Your task to perform on an android device: open app "Viber Messenger" Image 0: 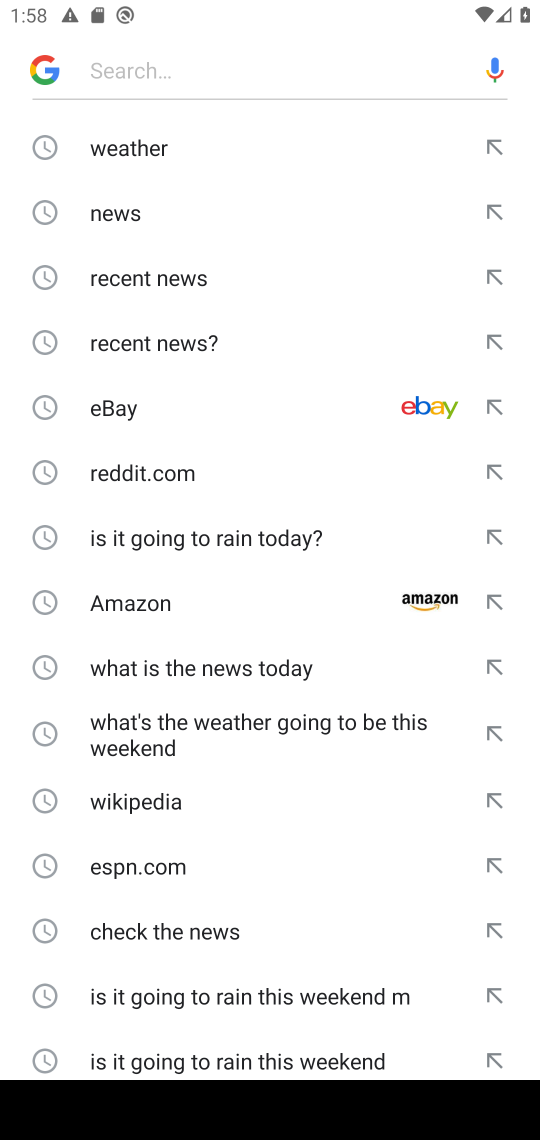
Step 0: press home button
Your task to perform on an android device: open app "Viber Messenger" Image 1: 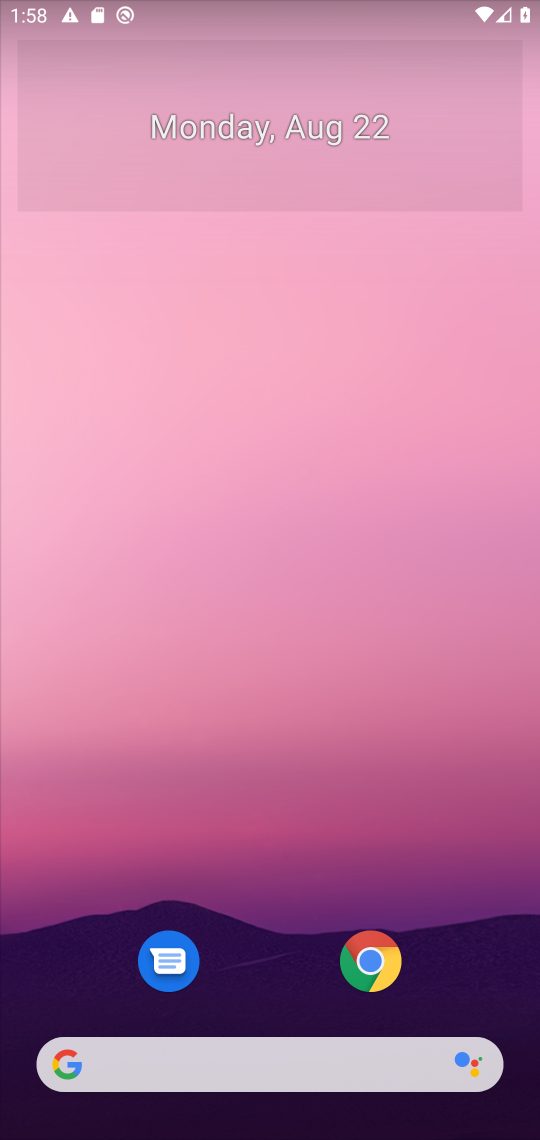
Step 1: drag from (470, 974) to (492, 213)
Your task to perform on an android device: open app "Viber Messenger" Image 2: 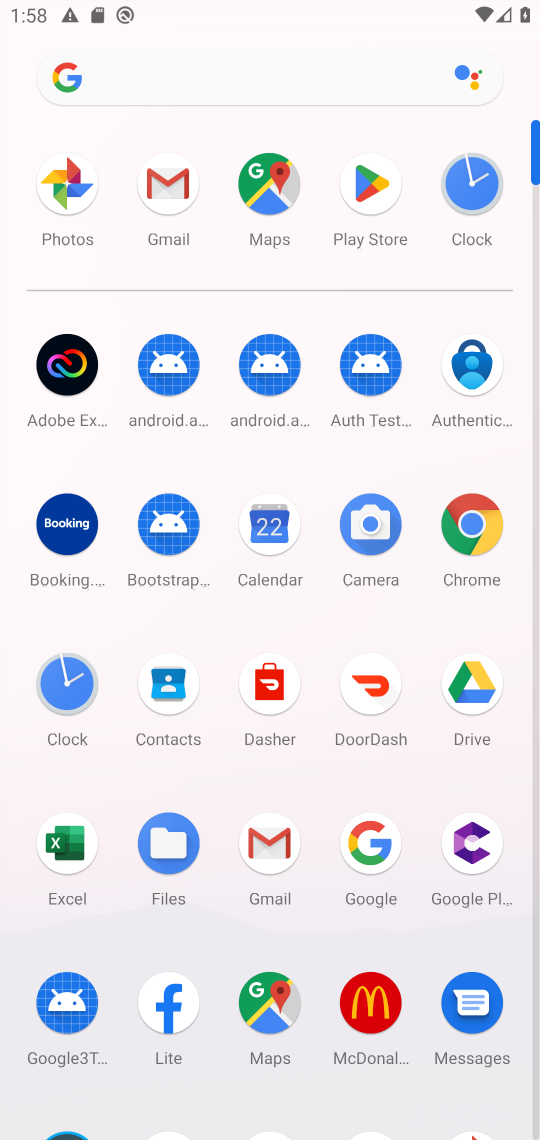
Step 2: click (380, 184)
Your task to perform on an android device: open app "Viber Messenger" Image 3: 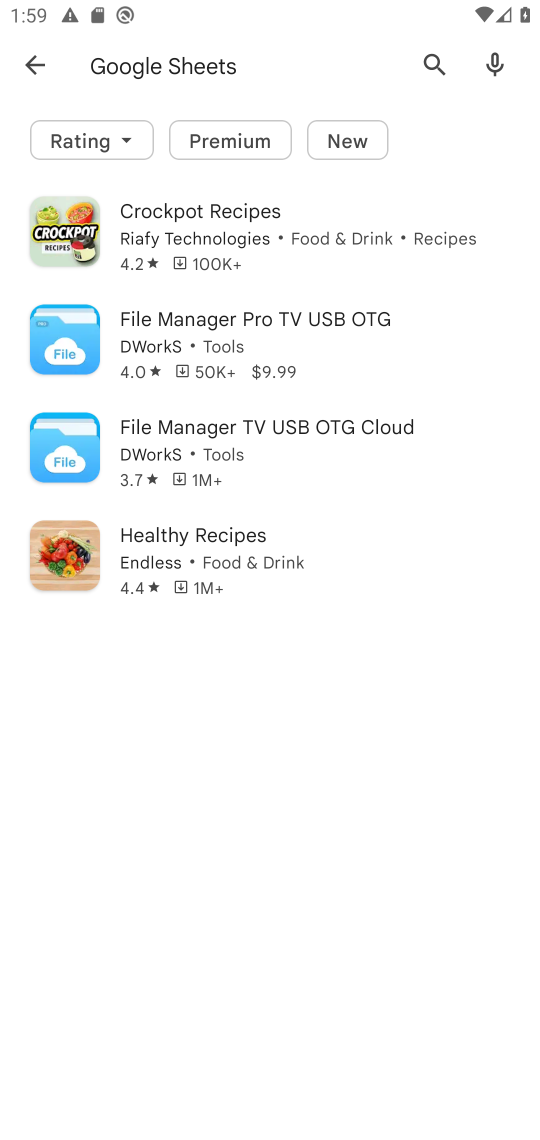
Step 3: press back button
Your task to perform on an android device: open app "Viber Messenger" Image 4: 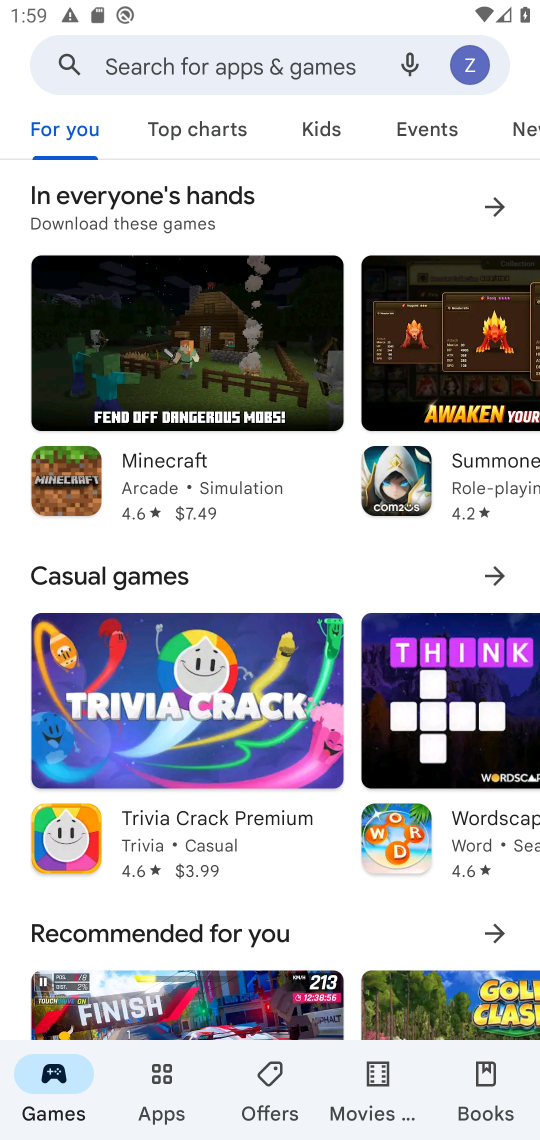
Step 4: click (252, 63)
Your task to perform on an android device: open app "Viber Messenger" Image 5: 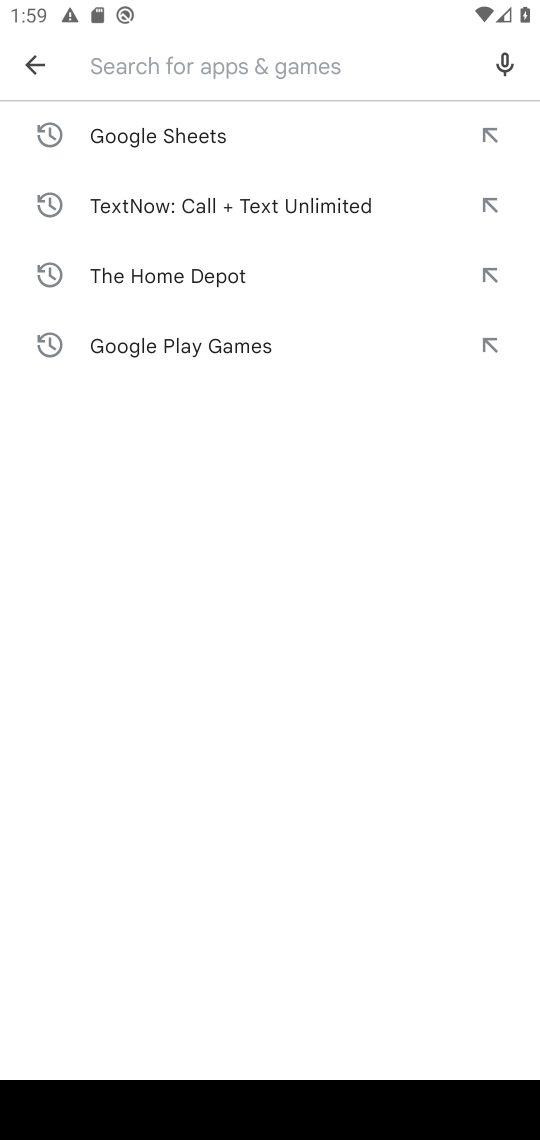
Step 5: type "Viber Messenger"
Your task to perform on an android device: open app "Viber Messenger" Image 6: 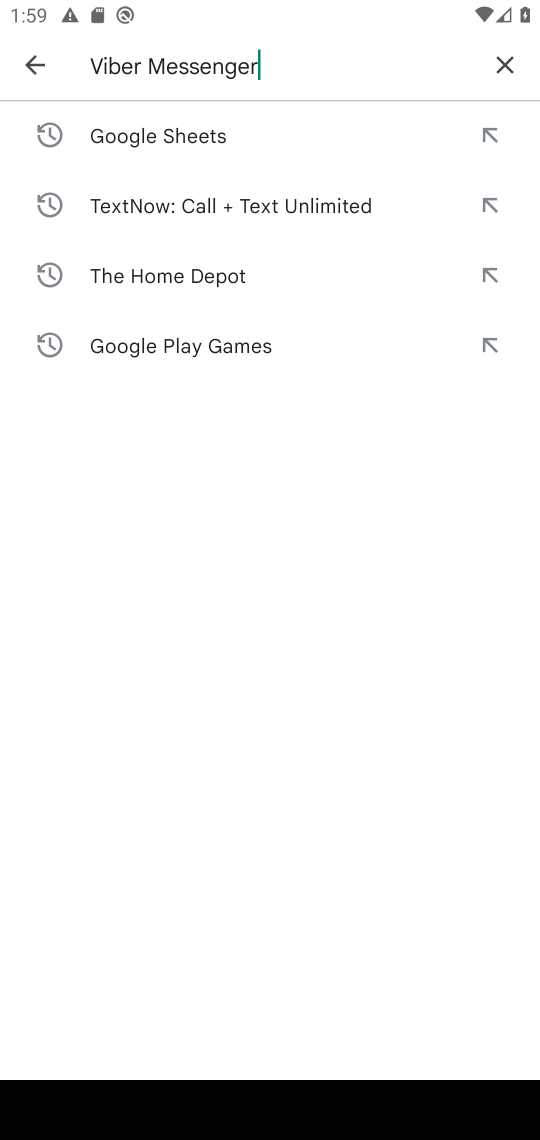
Step 6: press enter
Your task to perform on an android device: open app "Viber Messenger" Image 7: 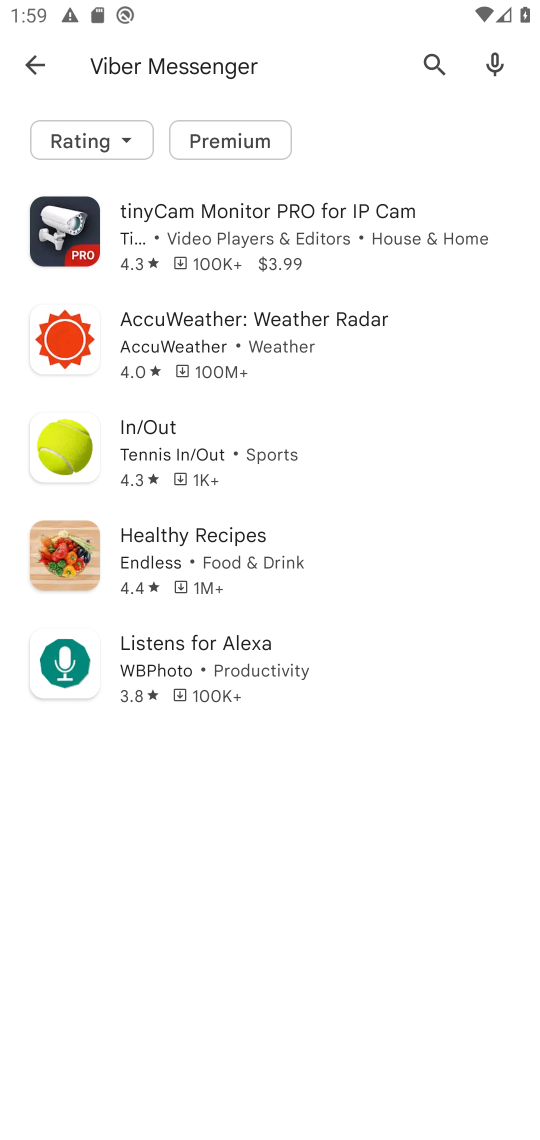
Step 7: task complete